Your task to perform on an android device: Open battery settings Image 0: 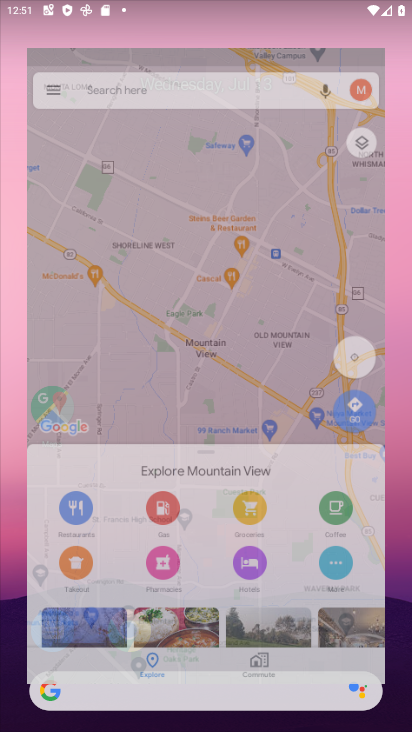
Step 0: drag from (393, 654) to (411, 282)
Your task to perform on an android device: Open battery settings Image 1: 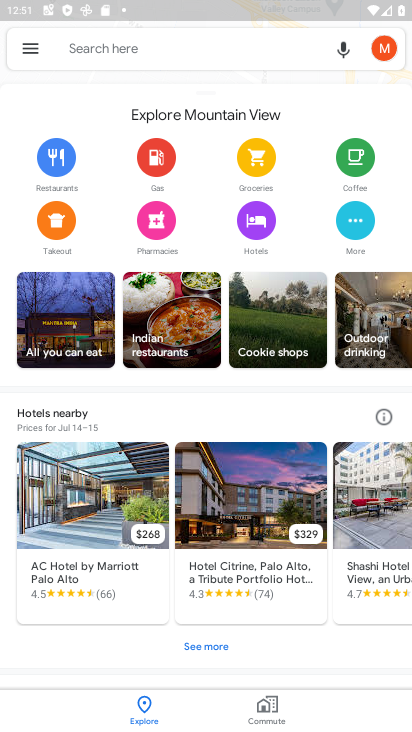
Step 1: press home button
Your task to perform on an android device: Open battery settings Image 2: 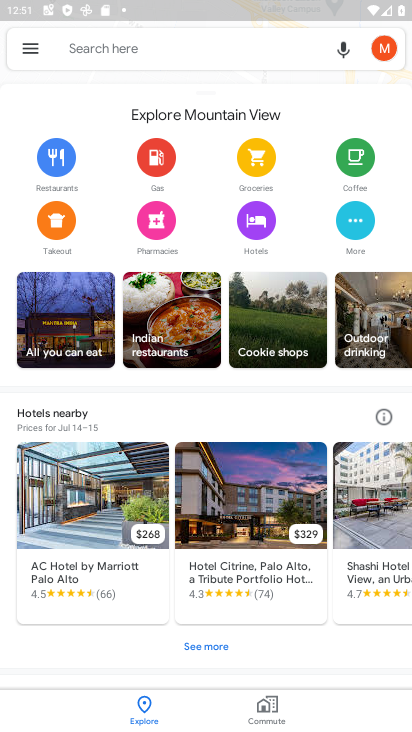
Step 2: click (407, 416)
Your task to perform on an android device: Open battery settings Image 3: 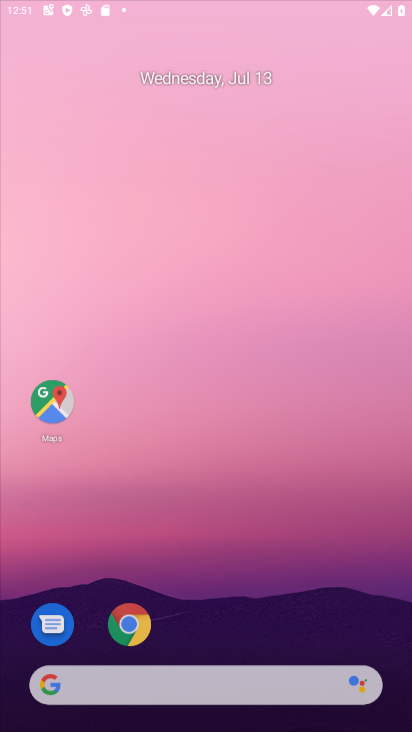
Step 3: drag from (410, 707) to (230, 23)
Your task to perform on an android device: Open battery settings Image 4: 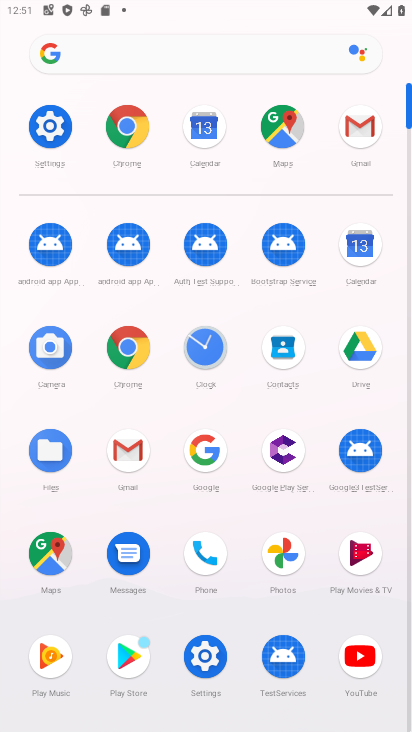
Step 4: click (195, 674)
Your task to perform on an android device: Open battery settings Image 5: 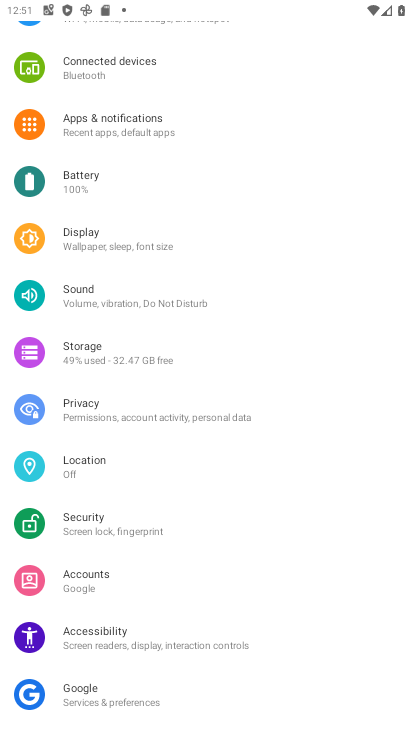
Step 5: click (92, 186)
Your task to perform on an android device: Open battery settings Image 6: 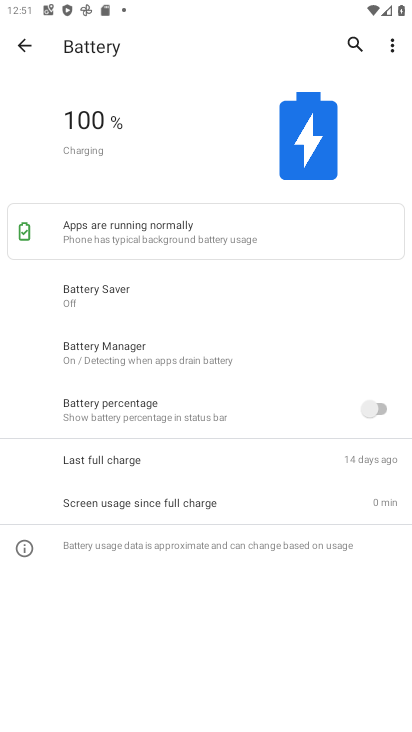
Step 6: task complete